Your task to perform on an android device: Open Youtube and go to the subscriptions tab Image 0: 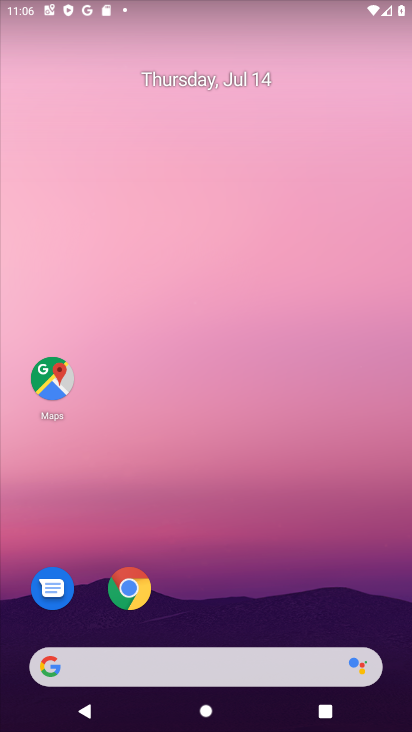
Step 0: drag from (181, 669) to (336, 118)
Your task to perform on an android device: Open Youtube and go to the subscriptions tab Image 1: 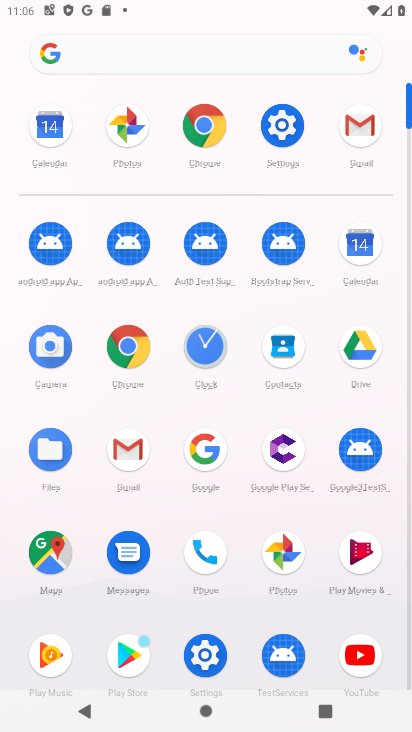
Step 1: click (364, 658)
Your task to perform on an android device: Open Youtube and go to the subscriptions tab Image 2: 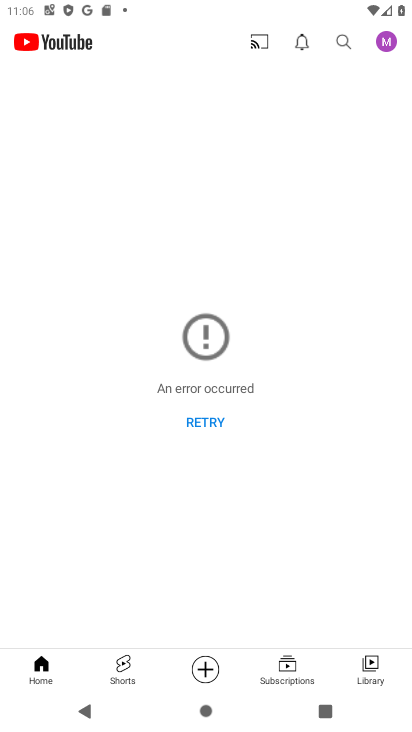
Step 2: click (210, 418)
Your task to perform on an android device: Open Youtube and go to the subscriptions tab Image 3: 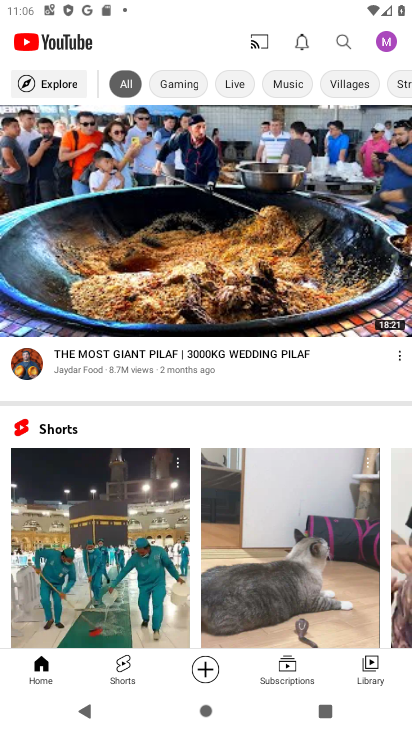
Step 3: click (293, 678)
Your task to perform on an android device: Open Youtube and go to the subscriptions tab Image 4: 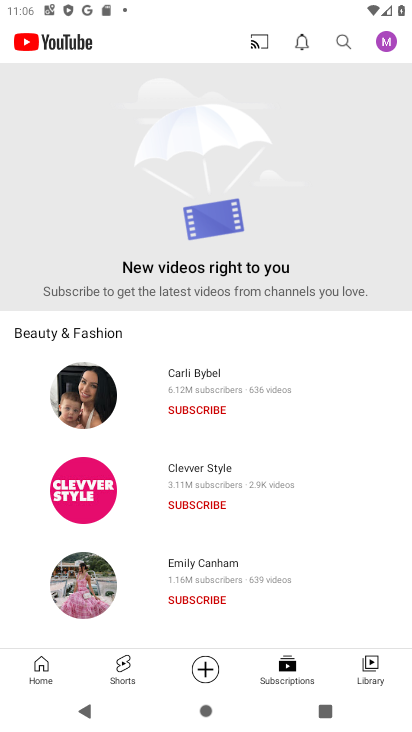
Step 4: task complete